Your task to perform on an android device: Do I have any events today? Image 0: 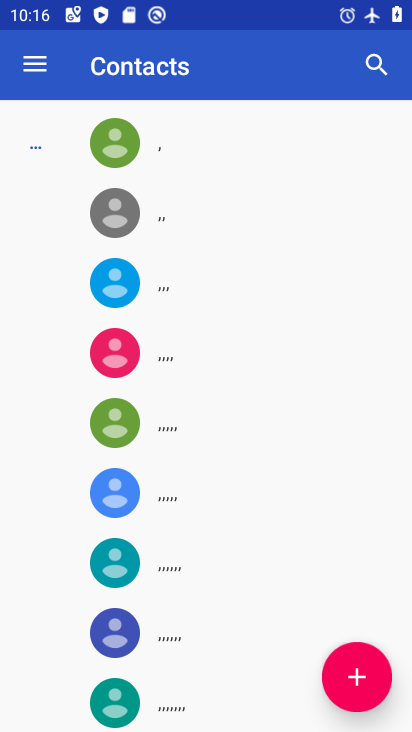
Step 0: press home button
Your task to perform on an android device: Do I have any events today? Image 1: 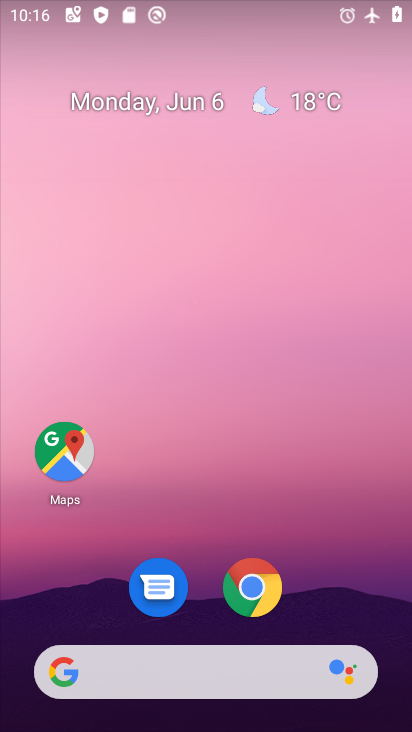
Step 1: drag from (331, 532) to (351, 126)
Your task to perform on an android device: Do I have any events today? Image 2: 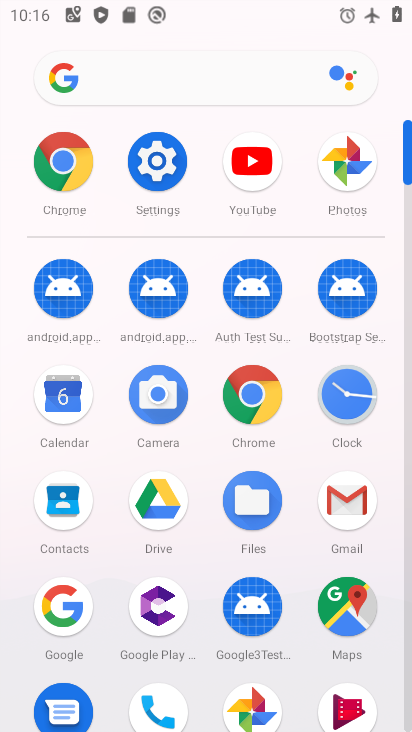
Step 2: click (72, 395)
Your task to perform on an android device: Do I have any events today? Image 3: 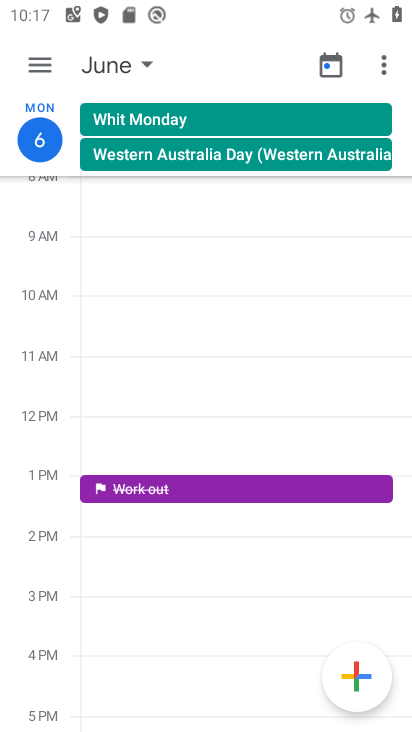
Step 3: task complete